Your task to perform on an android device: Open the web browser Image 0: 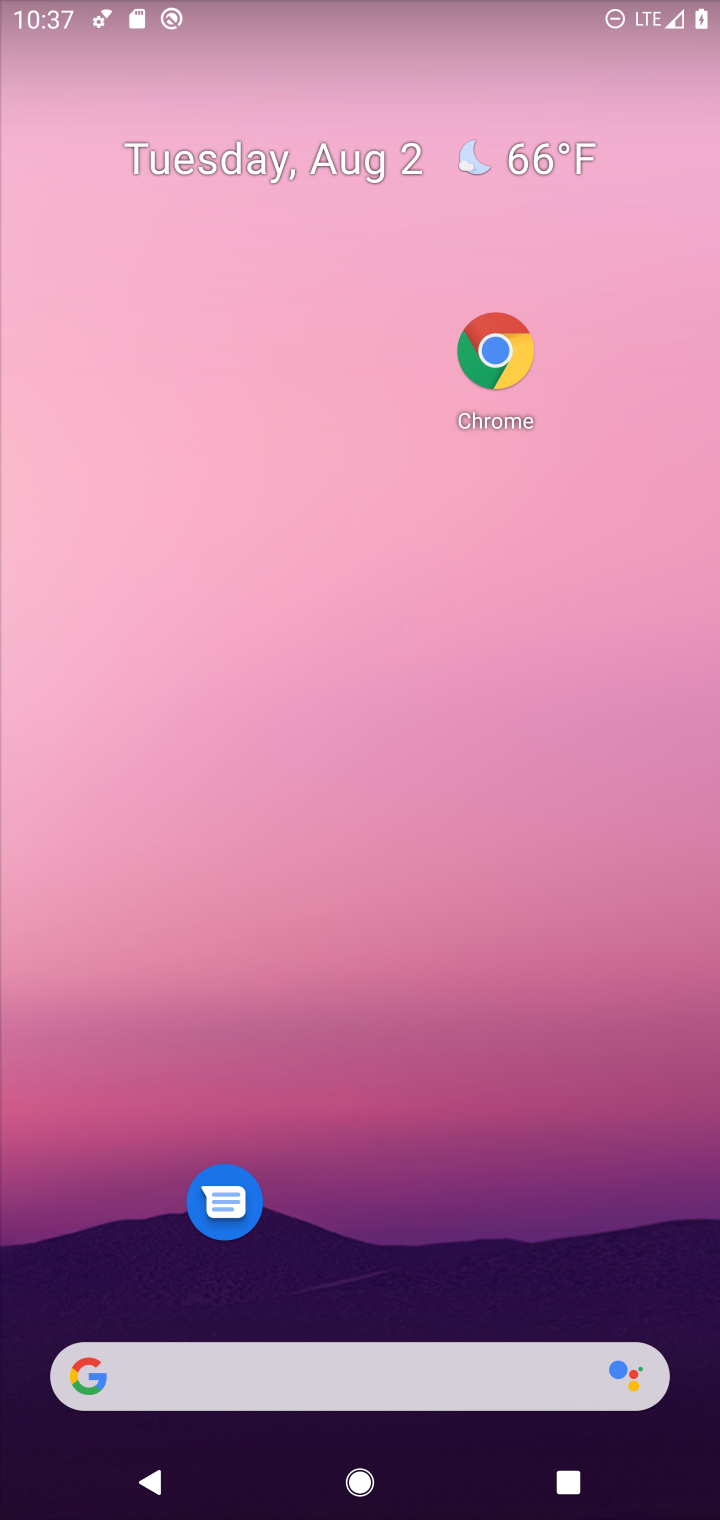
Step 0: drag from (367, 1296) to (321, 7)
Your task to perform on an android device: Open the web browser Image 1: 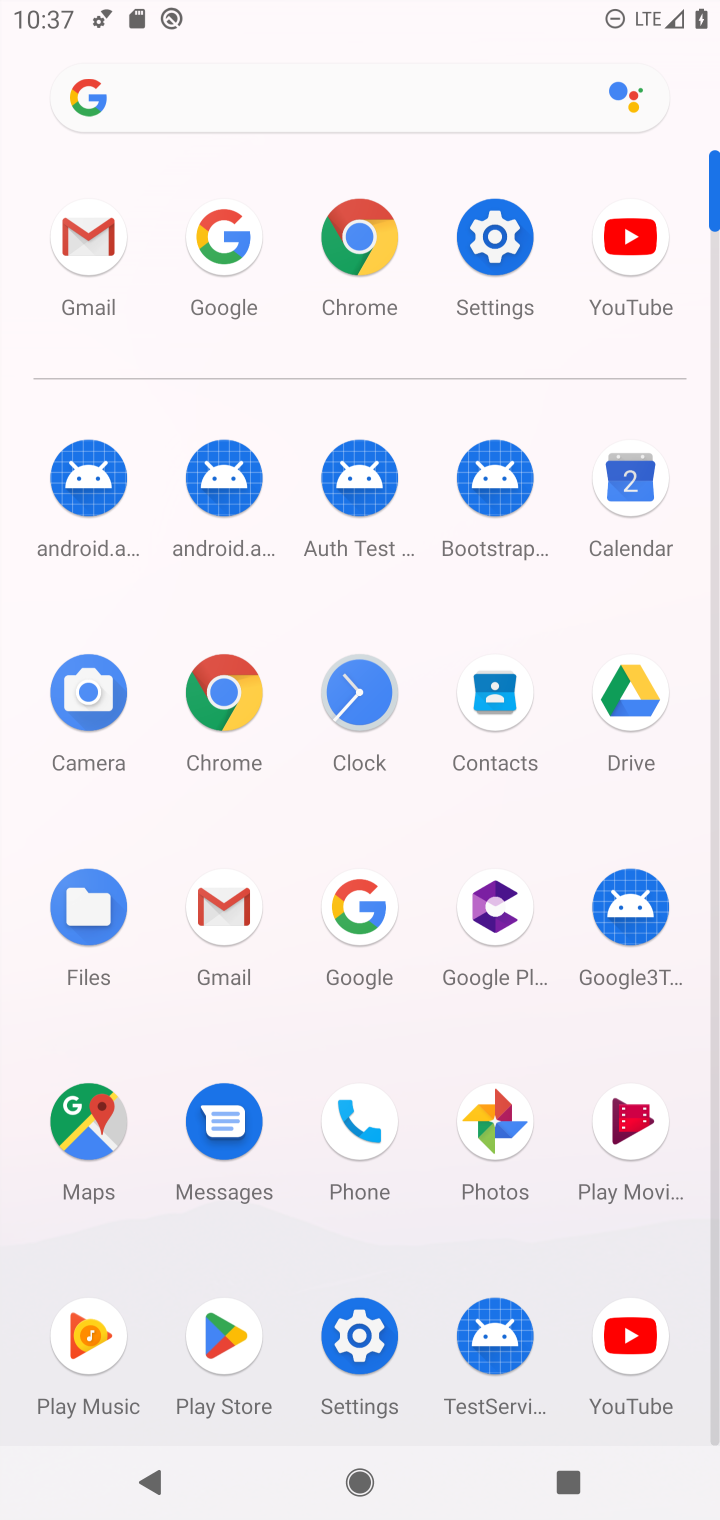
Step 1: click (347, 238)
Your task to perform on an android device: Open the web browser Image 2: 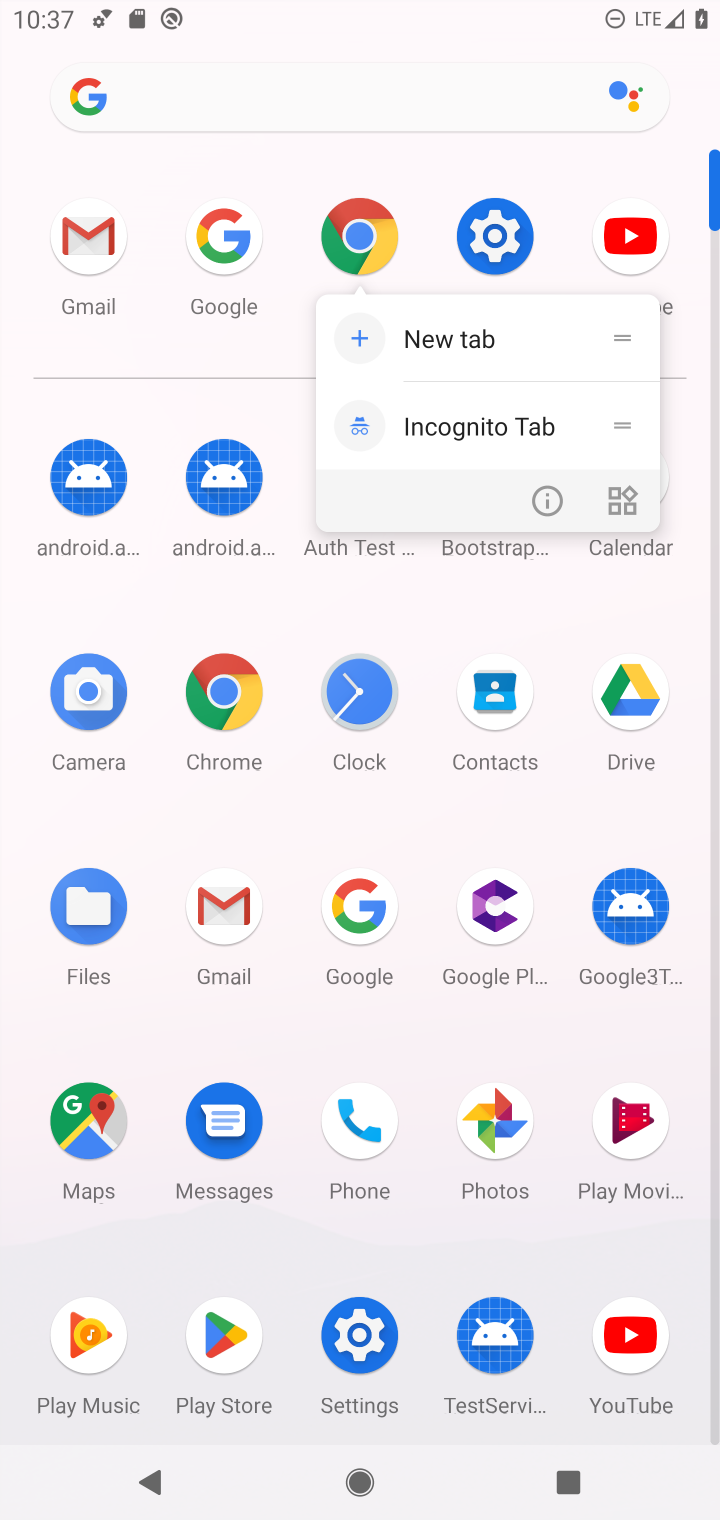
Step 2: click (353, 232)
Your task to perform on an android device: Open the web browser Image 3: 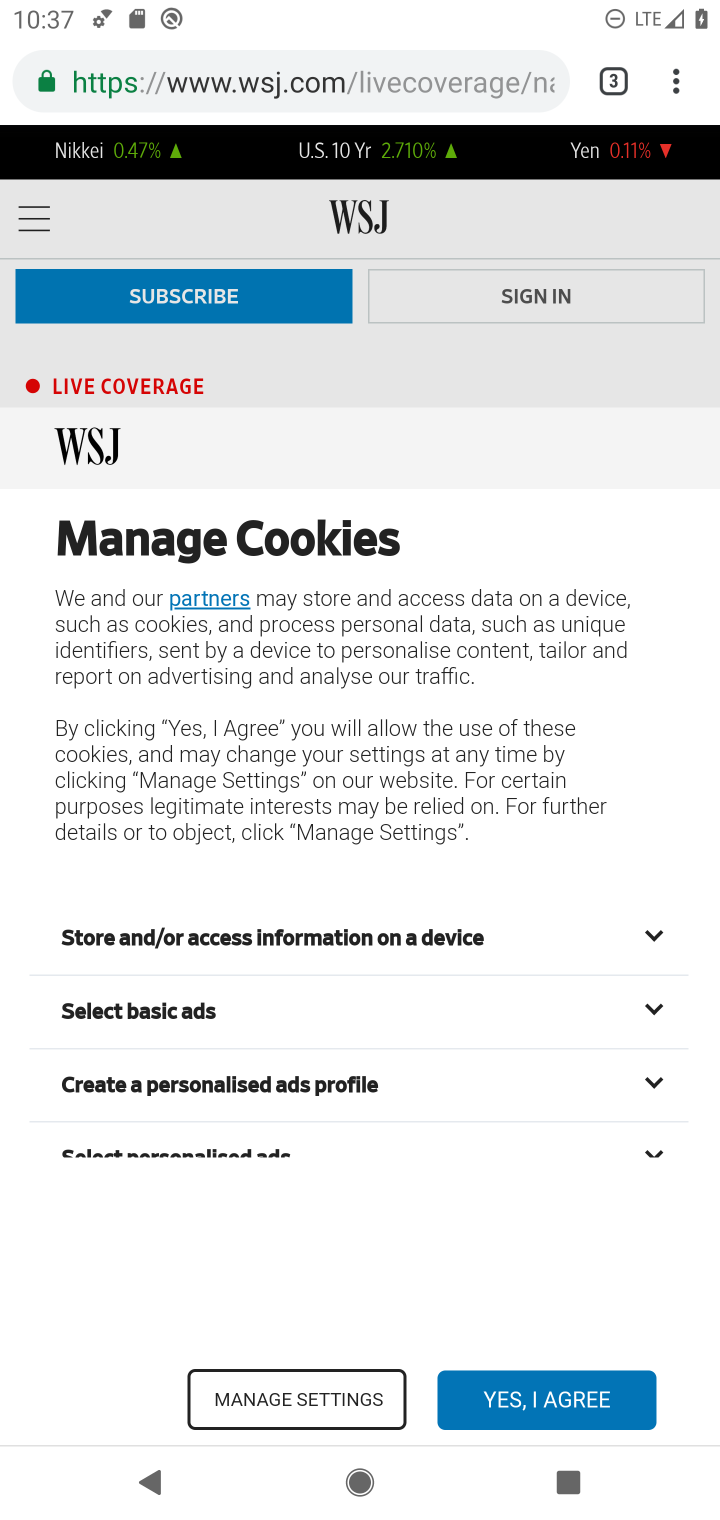
Step 3: task complete